Your task to perform on an android device: Go to Reddit.com Image 0: 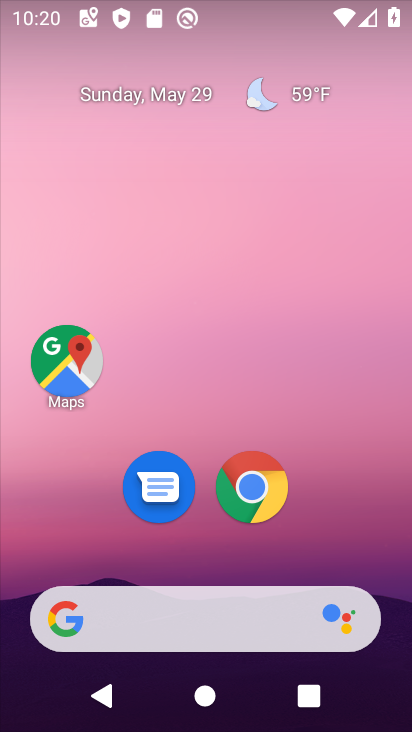
Step 0: click (255, 494)
Your task to perform on an android device: Go to Reddit.com Image 1: 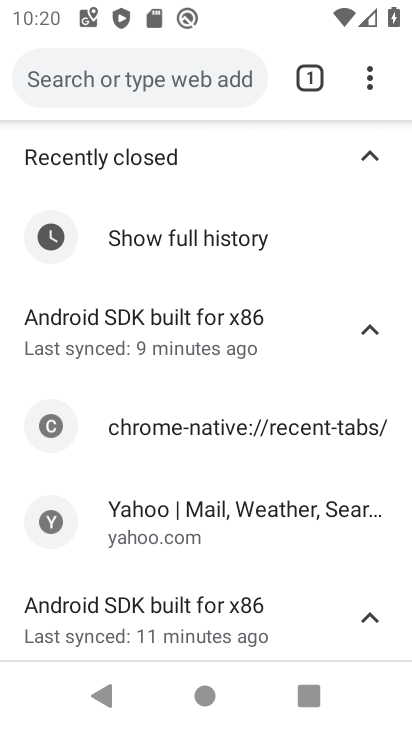
Step 1: click (167, 87)
Your task to perform on an android device: Go to Reddit.com Image 2: 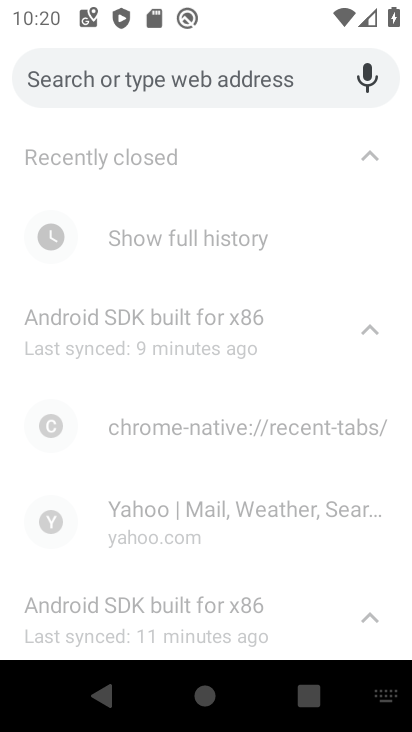
Step 2: type "Reddit.com"
Your task to perform on an android device: Go to Reddit.com Image 3: 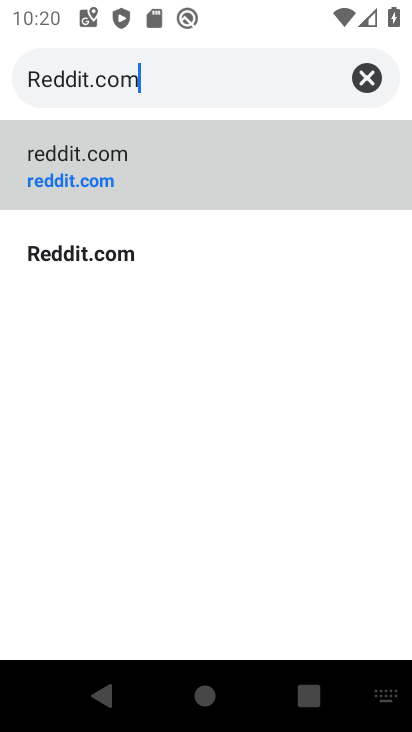
Step 3: click (84, 256)
Your task to perform on an android device: Go to Reddit.com Image 4: 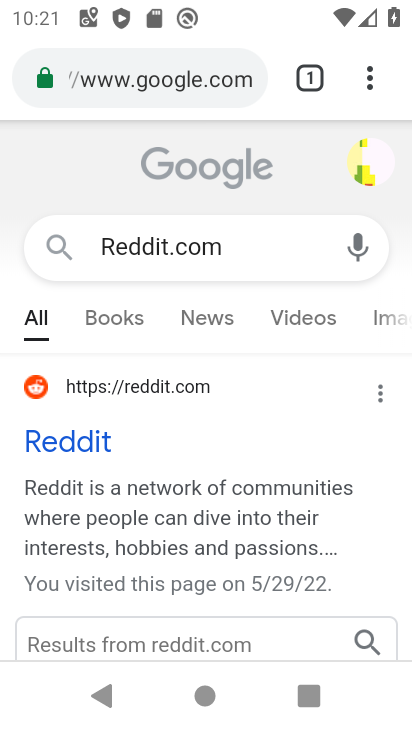
Step 4: task complete